Your task to perform on an android device: open a new tab in the chrome app Image 0: 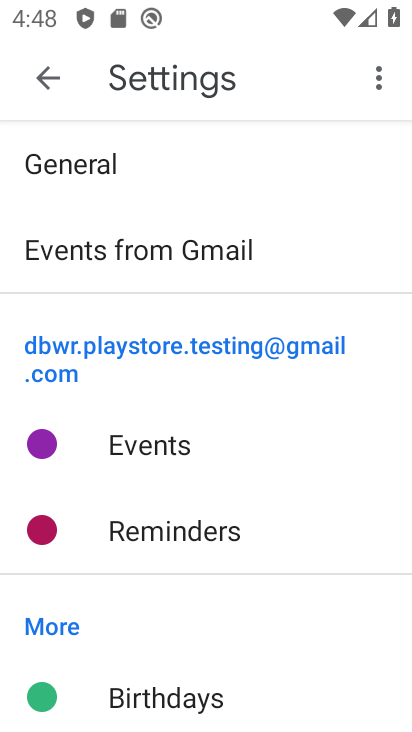
Step 0: click (45, 73)
Your task to perform on an android device: open a new tab in the chrome app Image 1: 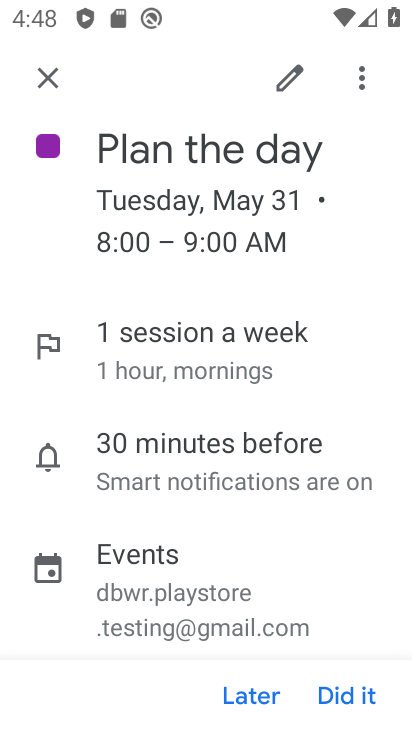
Step 1: click (48, 80)
Your task to perform on an android device: open a new tab in the chrome app Image 2: 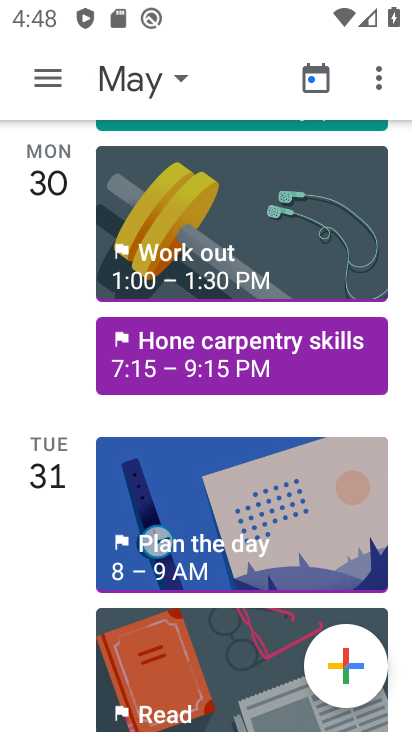
Step 2: press back button
Your task to perform on an android device: open a new tab in the chrome app Image 3: 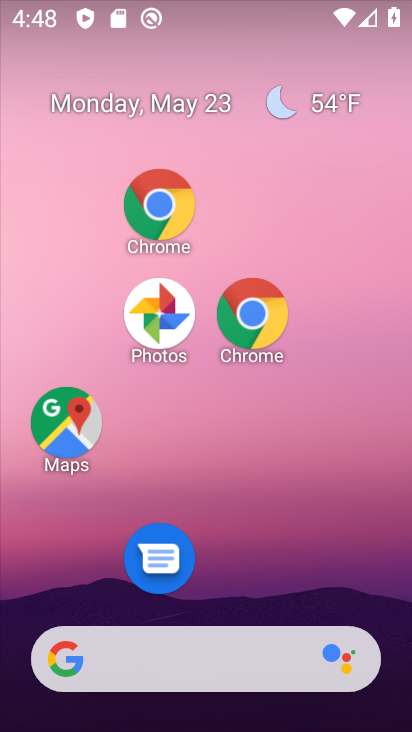
Step 3: press home button
Your task to perform on an android device: open a new tab in the chrome app Image 4: 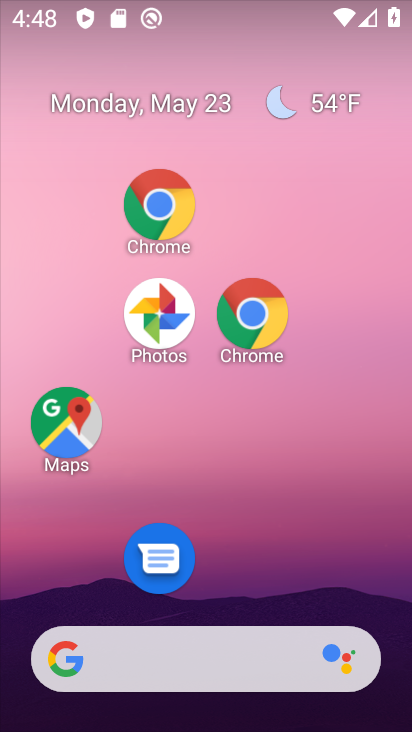
Step 4: drag from (193, 582) to (91, 92)
Your task to perform on an android device: open a new tab in the chrome app Image 5: 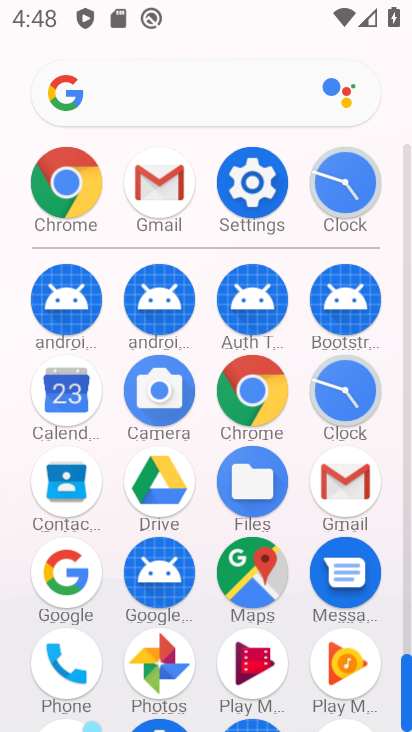
Step 5: click (67, 184)
Your task to perform on an android device: open a new tab in the chrome app Image 6: 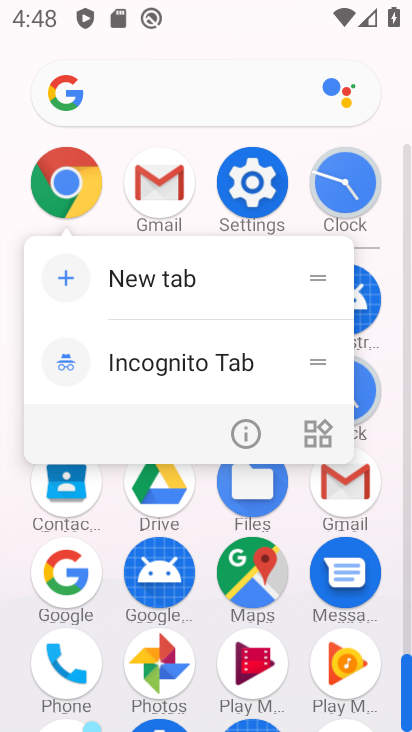
Step 6: click (68, 183)
Your task to perform on an android device: open a new tab in the chrome app Image 7: 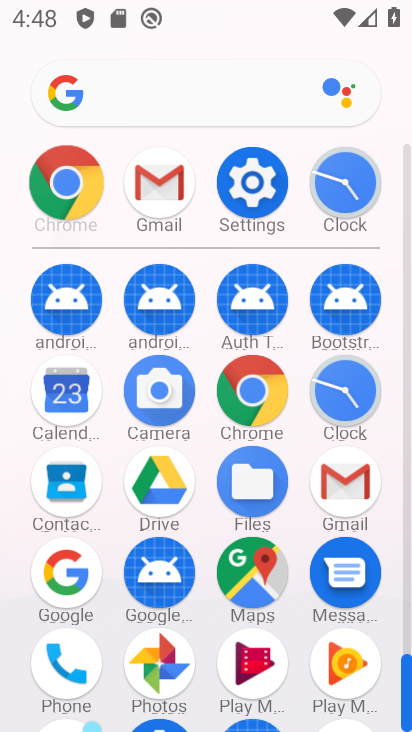
Step 7: click (71, 180)
Your task to perform on an android device: open a new tab in the chrome app Image 8: 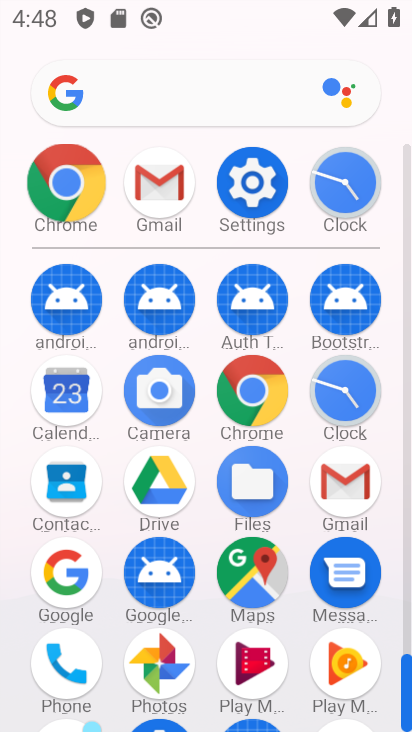
Step 8: click (81, 178)
Your task to perform on an android device: open a new tab in the chrome app Image 9: 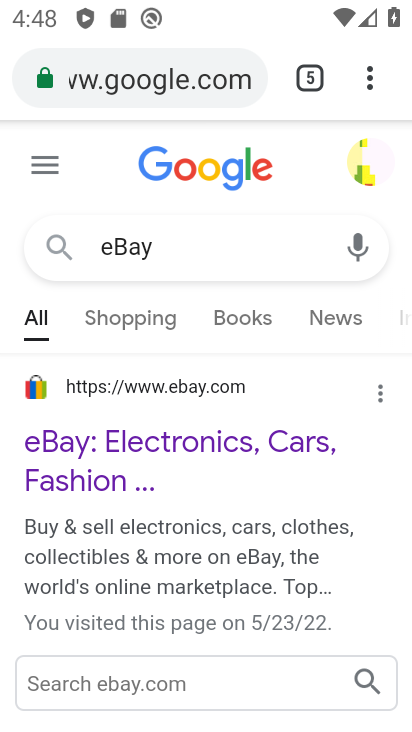
Step 9: drag from (369, 76) to (109, 142)
Your task to perform on an android device: open a new tab in the chrome app Image 10: 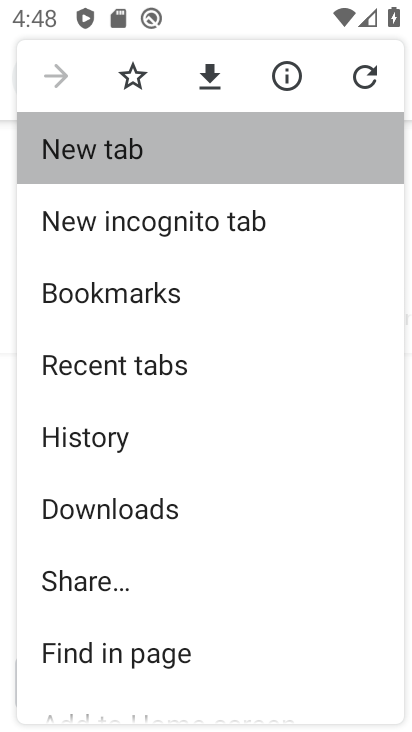
Step 10: click (109, 142)
Your task to perform on an android device: open a new tab in the chrome app Image 11: 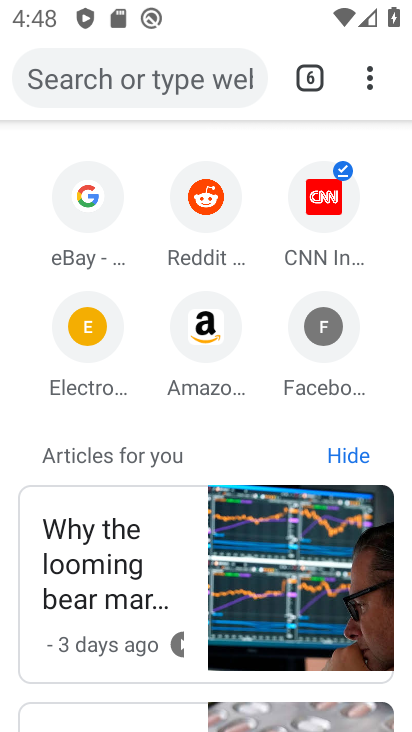
Step 11: task complete